Your task to perform on an android device: turn off data saver in the chrome app Image 0: 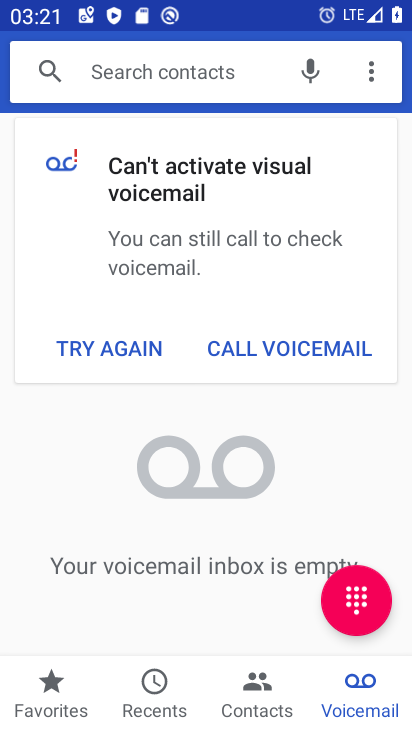
Step 0: press home button
Your task to perform on an android device: turn off data saver in the chrome app Image 1: 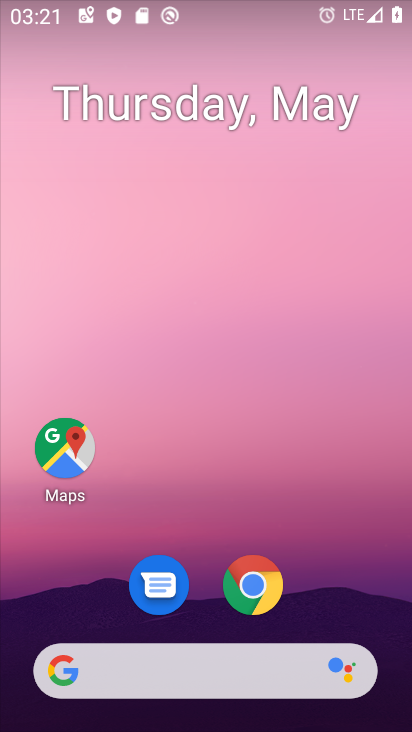
Step 1: click (243, 582)
Your task to perform on an android device: turn off data saver in the chrome app Image 2: 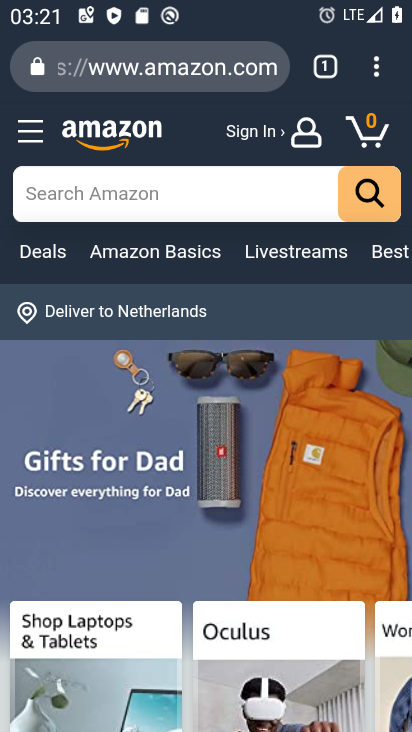
Step 2: click (375, 77)
Your task to perform on an android device: turn off data saver in the chrome app Image 3: 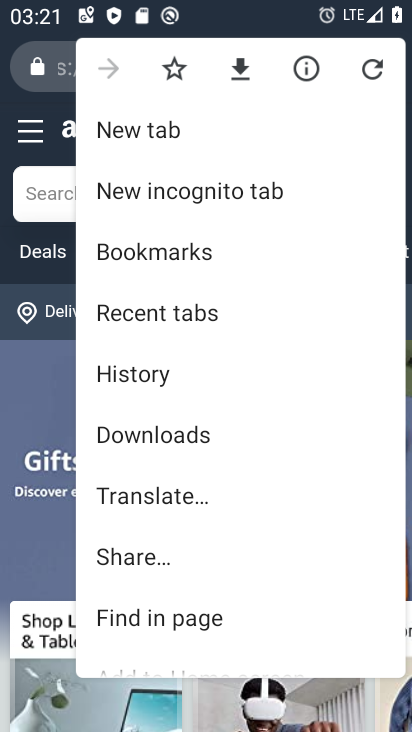
Step 3: drag from (244, 565) to (300, 208)
Your task to perform on an android device: turn off data saver in the chrome app Image 4: 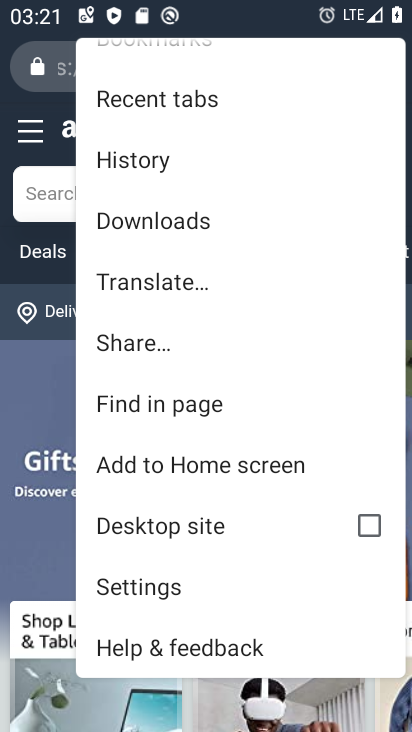
Step 4: click (170, 580)
Your task to perform on an android device: turn off data saver in the chrome app Image 5: 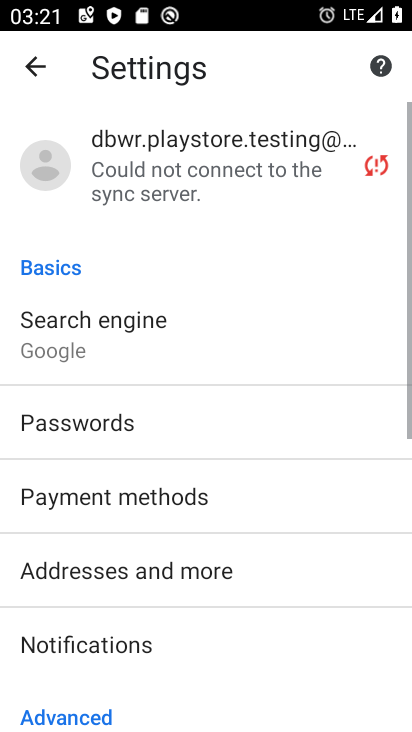
Step 5: drag from (246, 638) to (278, 225)
Your task to perform on an android device: turn off data saver in the chrome app Image 6: 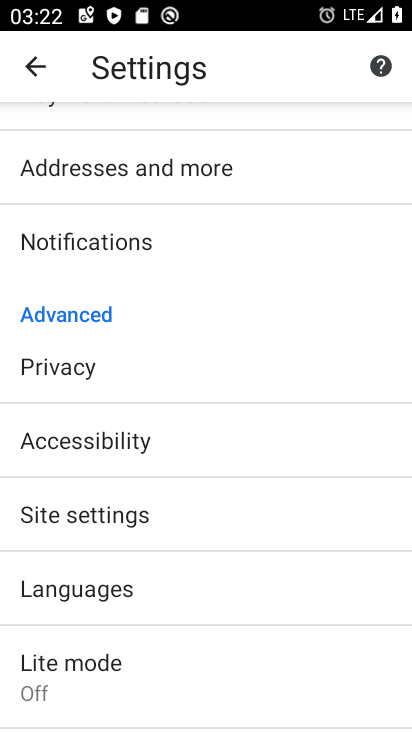
Step 6: click (199, 509)
Your task to perform on an android device: turn off data saver in the chrome app Image 7: 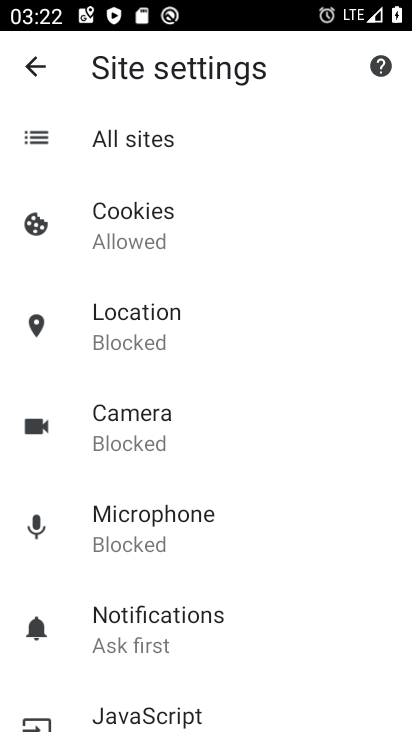
Step 7: click (36, 64)
Your task to perform on an android device: turn off data saver in the chrome app Image 8: 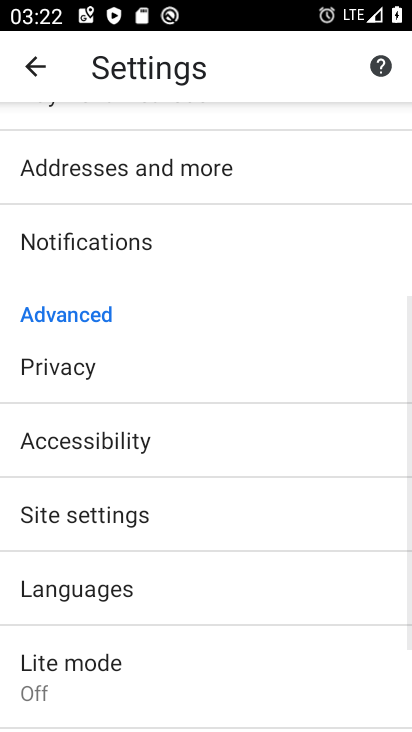
Step 8: drag from (216, 580) to (241, 330)
Your task to perform on an android device: turn off data saver in the chrome app Image 9: 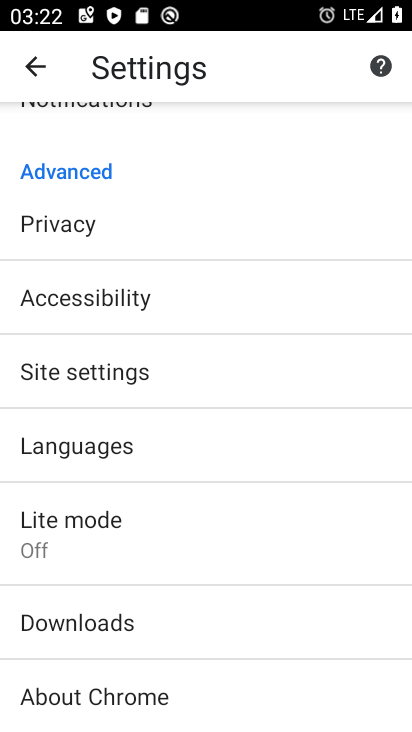
Step 9: click (162, 534)
Your task to perform on an android device: turn off data saver in the chrome app Image 10: 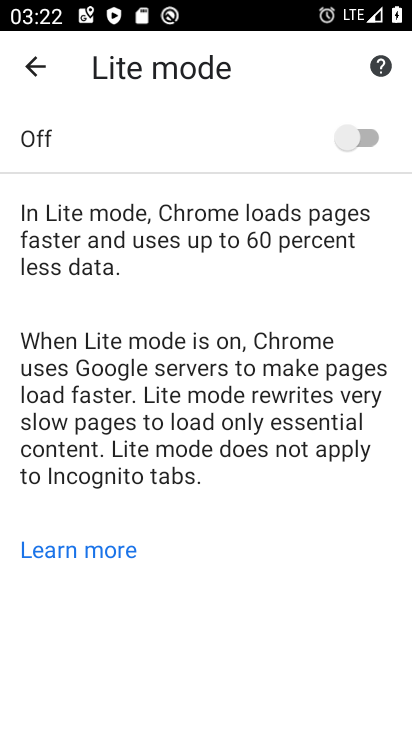
Step 10: task complete